Your task to perform on an android device: Open internet settings Image 0: 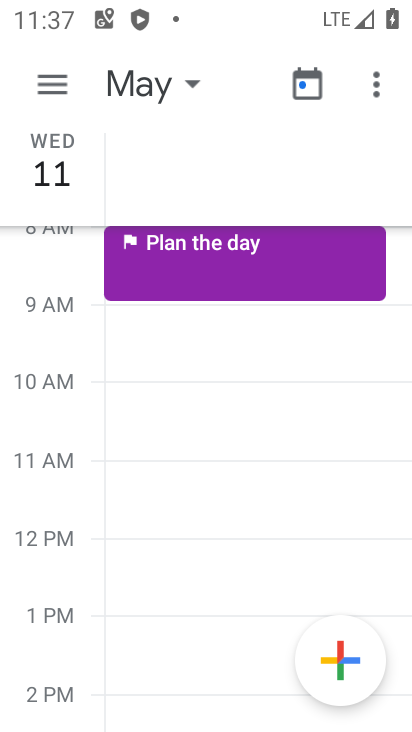
Step 0: press home button
Your task to perform on an android device: Open internet settings Image 1: 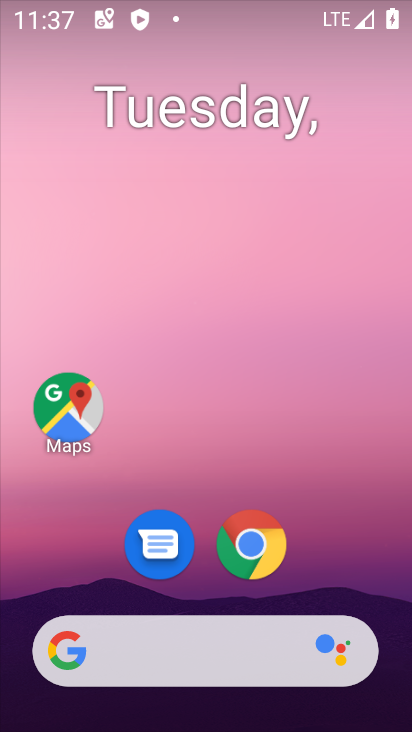
Step 1: drag from (378, 471) to (72, 0)
Your task to perform on an android device: Open internet settings Image 2: 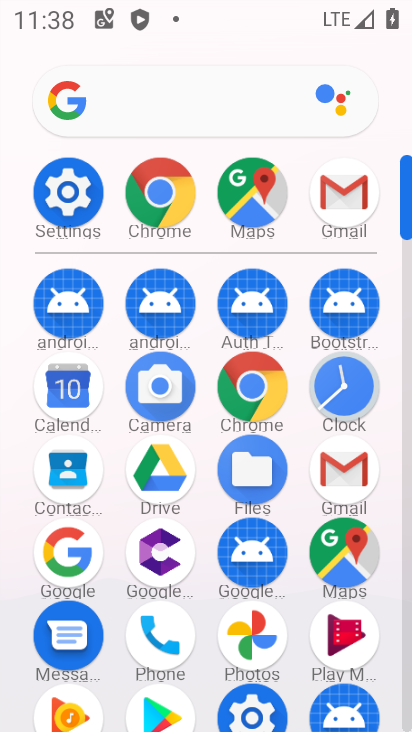
Step 2: click (41, 197)
Your task to perform on an android device: Open internet settings Image 3: 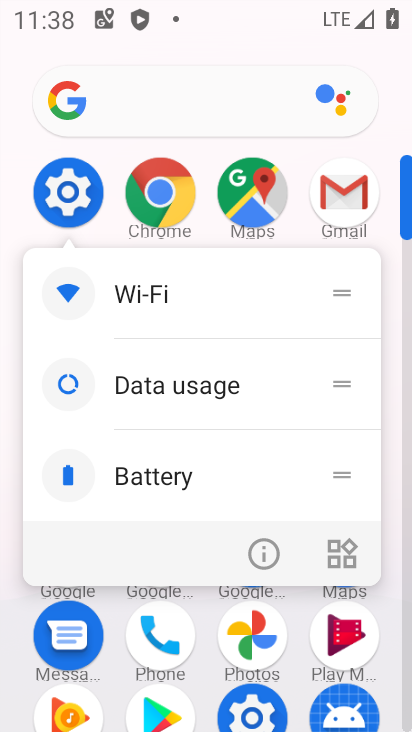
Step 3: click (62, 198)
Your task to perform on an android device: Open internet settings Image 4: 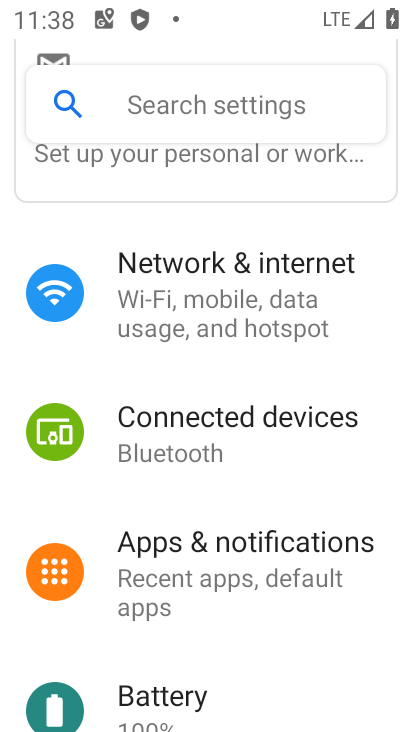
Step 4: drag from (184, 180) to (232, 527)
Your task to perform on an android device: Open internet settings Image 5: 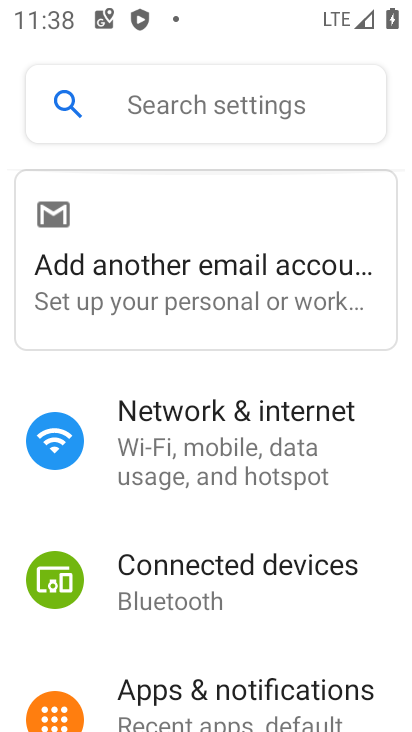
Step 5: click (224, 445)
Your task to perform on an android device: Open internet settings Image 6: 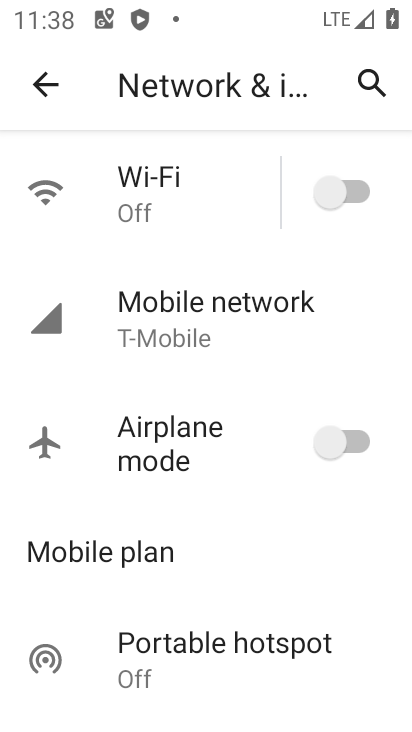
Step 6: task complete